Your task to perform on an android device: Open Chrome and go to the settings page Image 0: 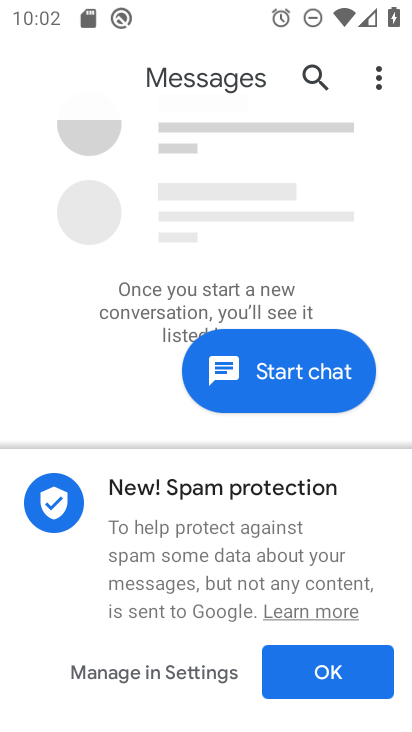
Step 0: press home button
Your task to perform on an android device: Open Chrome and go to the settings page Image 1: 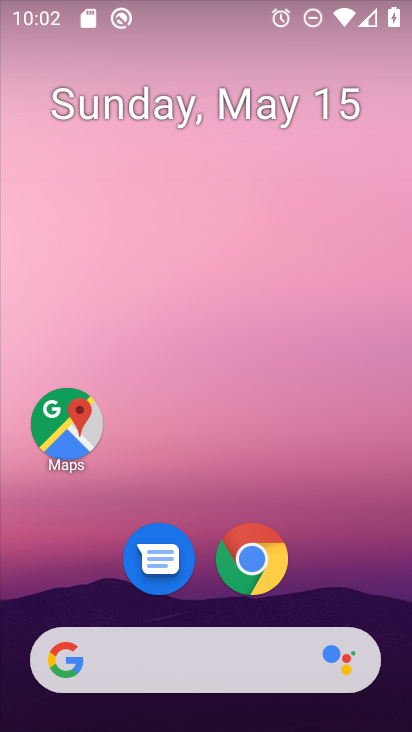
Step 1: click (258, 554)
Your task to perform on an android device: Open Chrome and go to the settings page Image 2: 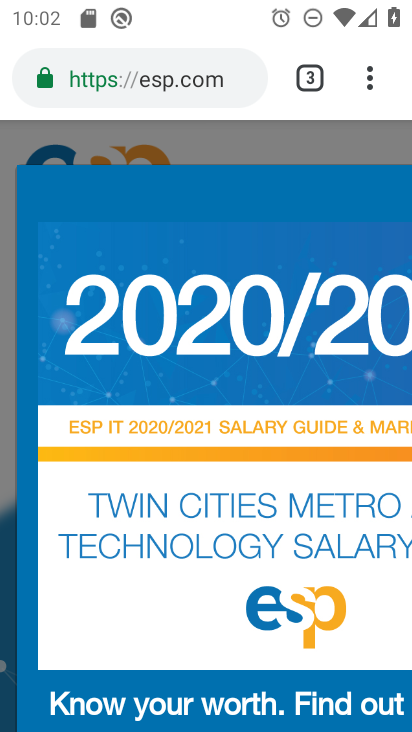
Step 2: click (375, 78)
Your task to perform on an android device: Open Chrome and go to the settings page Image 3: 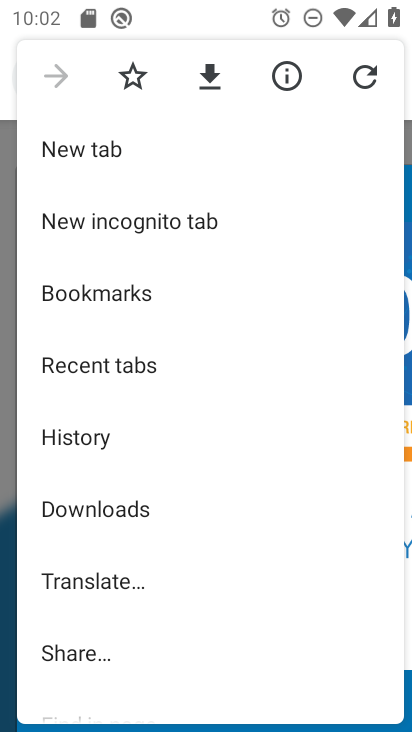
Step 3: drag from (180, 597) to (241, 218)
Your task to perform on an android device: Open Chrome and go to the settings page Image 4: 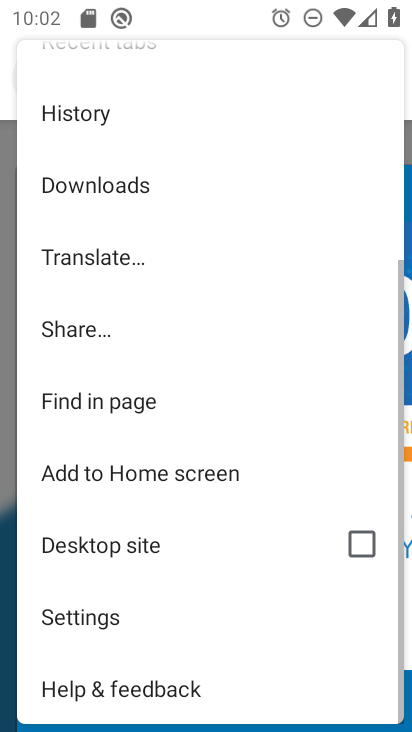
Step 4: click (185, 625)
Your task to perform on an android device: Open Chrome and go to the settings page Image 5: 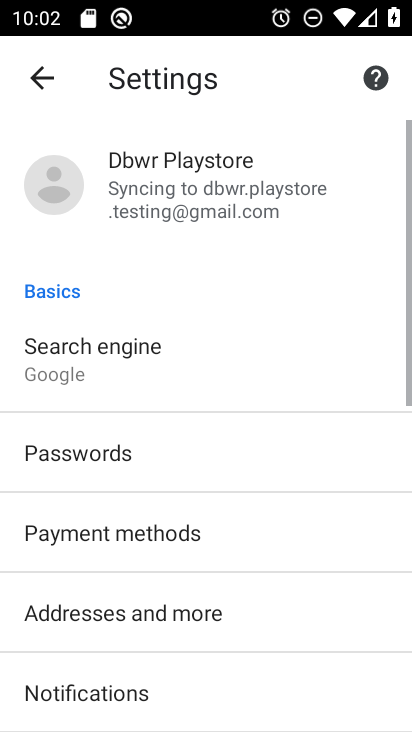
Step 5: task complete